Your task to perform on an android device: Open CNN.com Image 0: 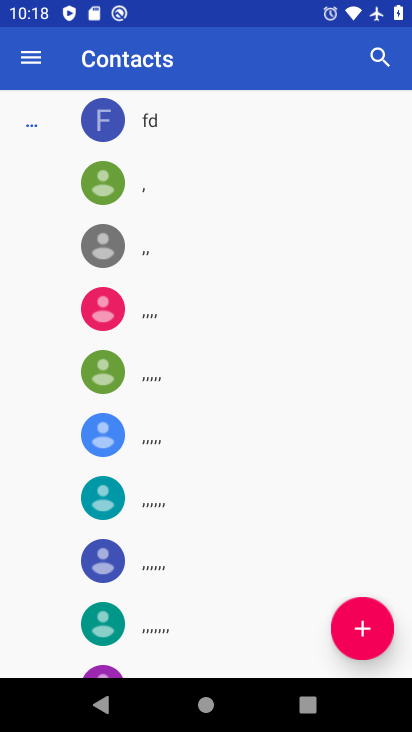
Step 0: press back button
Your task to perform on an android device: Open CNN.com Image 1: 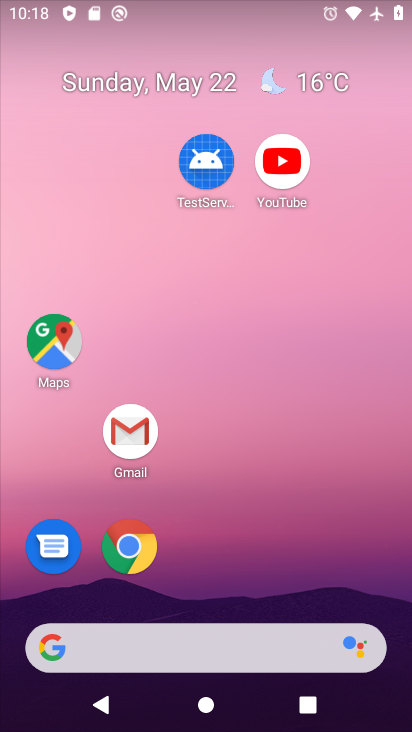
Step 1: drag from (267, 713) to (239, 302)
Your task to perform on an android device: Open CNN.com Image 2: 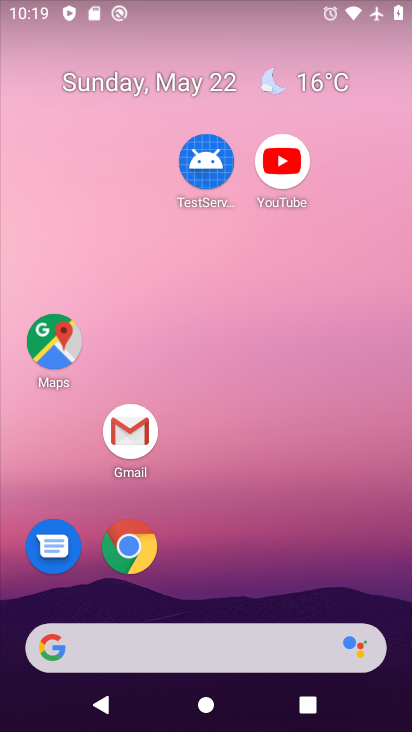
Step 2: drag from (265, 712) to (220, 248)
Your task to perform on an android device: Open CNN.com Image 3: 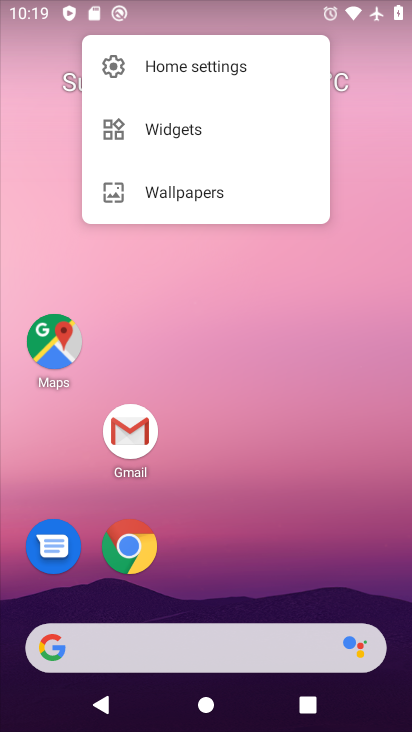
Step 3: drag from (292, 579) to (230, 59)
Your task to perform on an android device: Open CNN.com Image 4: 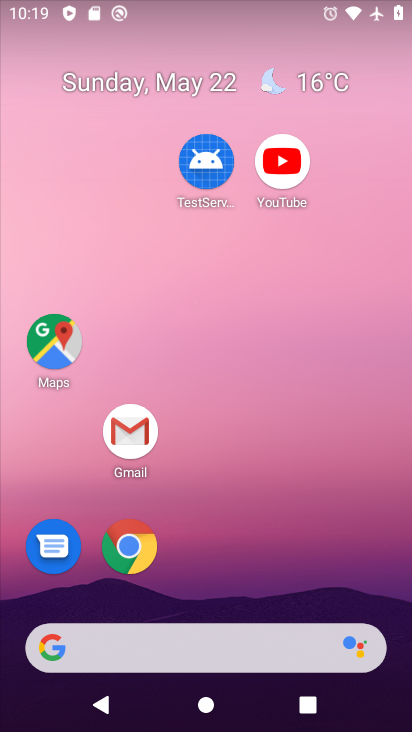
Step 4: click (237, 371)
Your task to perform on an android device: Open CNN.com Image 5: 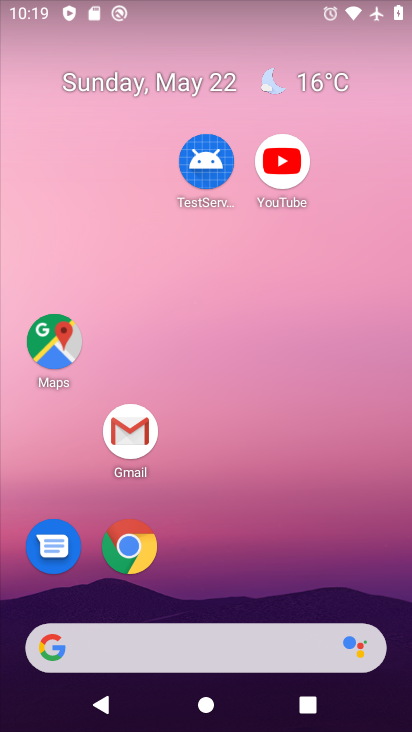
Step 5: drag from (248, 664) to (217, 102)
Your task to perform on an android device: Open CNN.com Image 6: 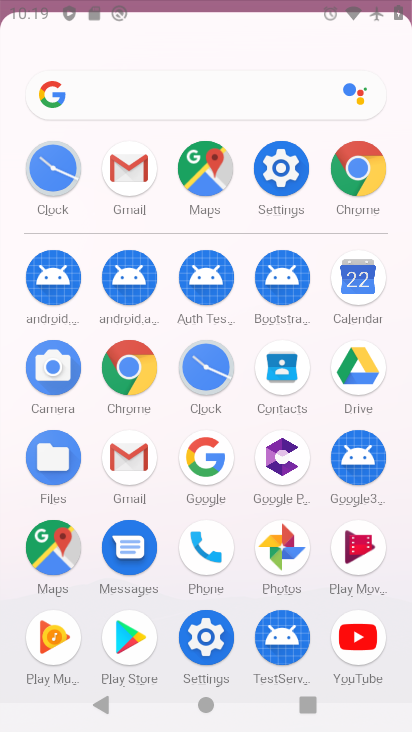
Step 6: drag from (245, 575) to (163, 20)
Your task to perform on an android device: Open CNN.com Image 7: 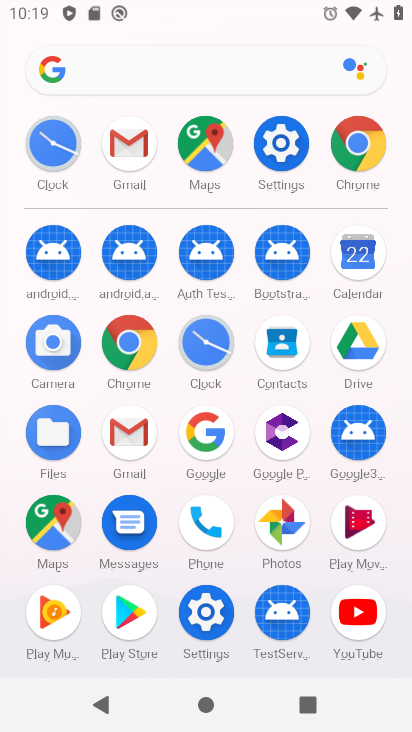
Step 7: click (349, 153)
Your task to perform on an android device: Open CNN.com Image 8: 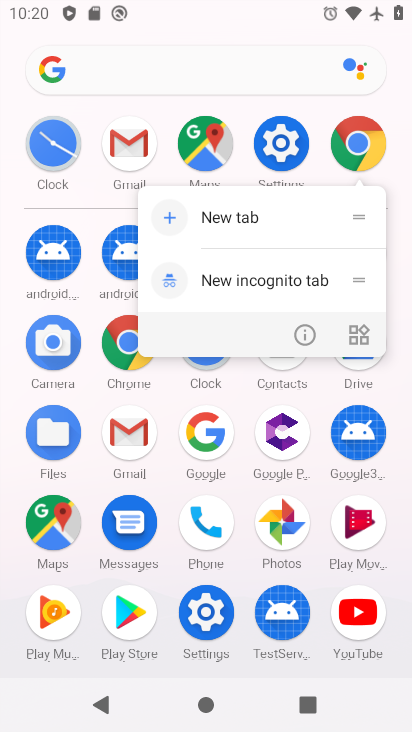
Step 8: click (239, 219)
Your task to perform on an android device: Open CNN.com Image 9: 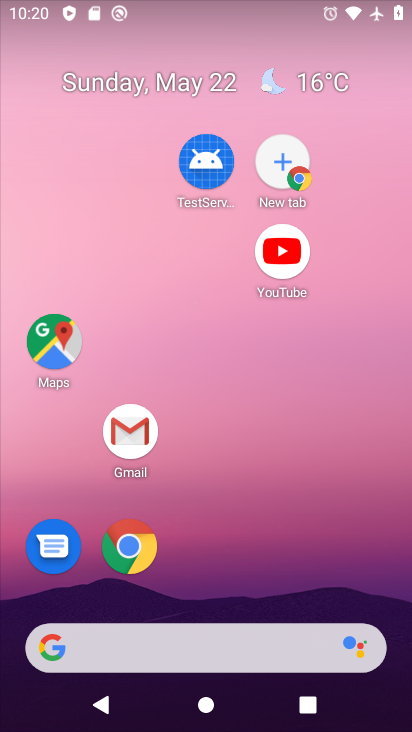
Step 9: drag from (248, 554) to (83, 51)
Your task to perform on an android device: Open CNN.com Image 10: 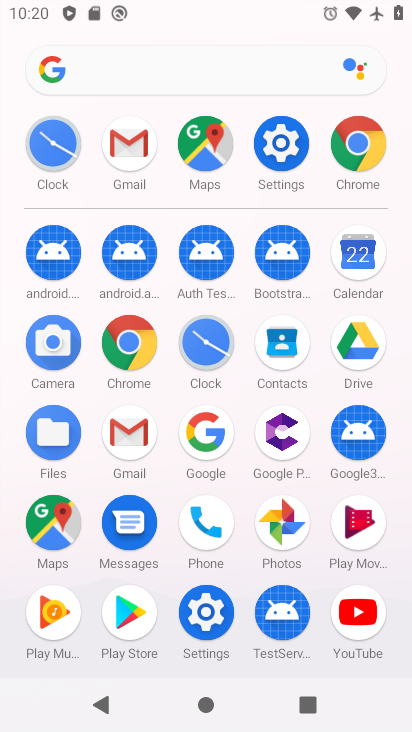
Step 10: click (362, 153)
Your task to perform on an android device: Open CNN.com Image 11: 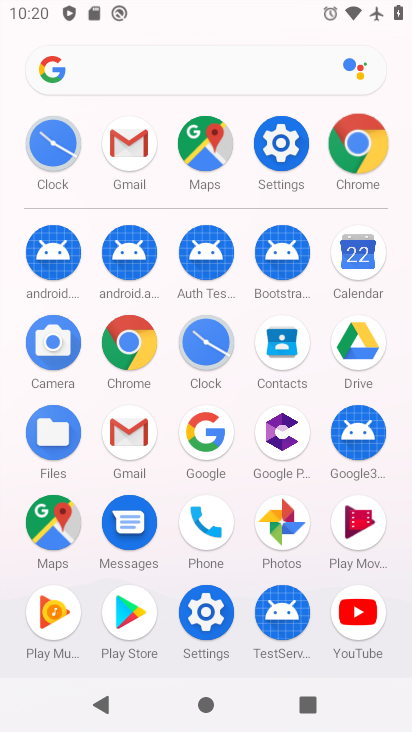
Step 11: click (363, 154)
Your task to perform on an android device: Open CNN.com Image 12: 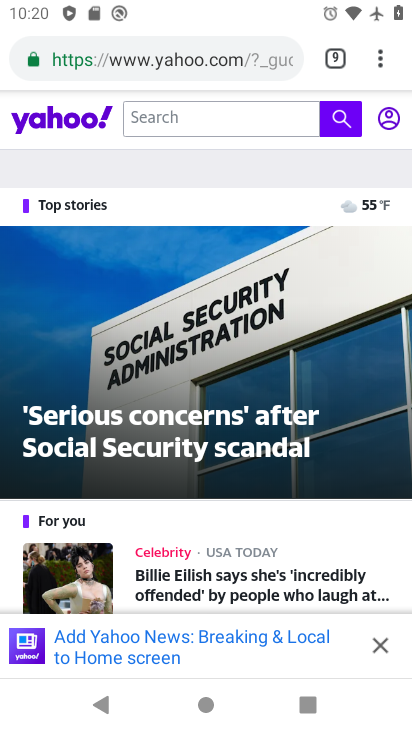
Step 12: drag from (377, 63) to (154, 119)
Your task to perform on an android device: Open CNN.com Image 13: 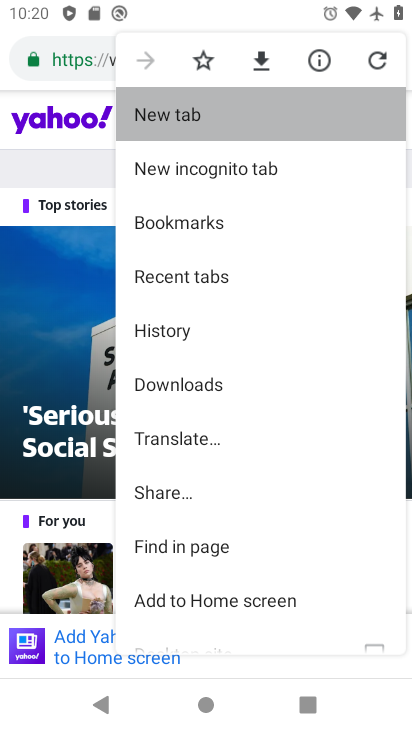
Step 13: click (160, 114)
Your task to perform on an android device: Open CNN.com Image 14: 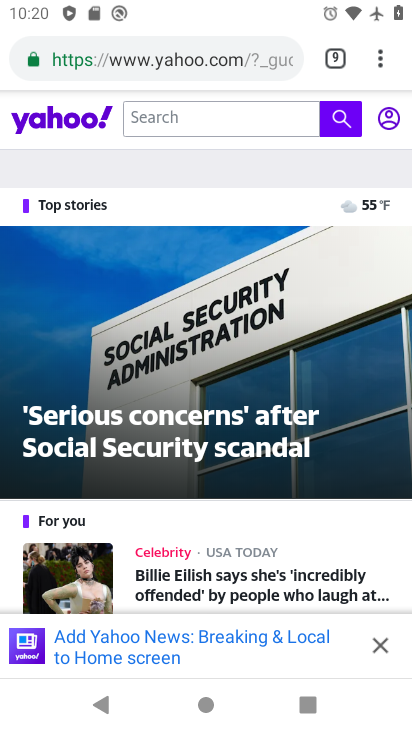
Step 14: click (162, 112)
Your task to perform on an android device: Open CNN.com Image 15: 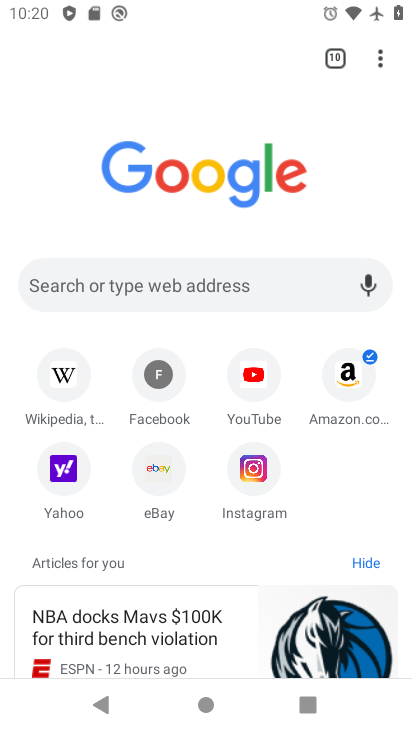
Step 15: click (51, 275)
Your task to perform on an android device: Open CNN.com Image 16: 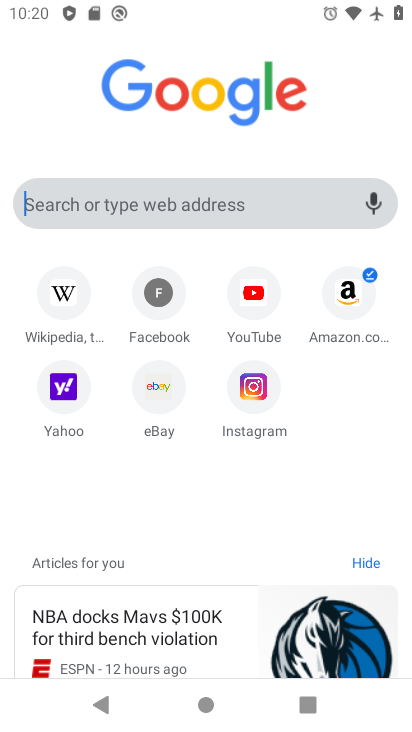
Step 16: click (51, 275)
Your task to perform on an android device: Open CNN.com Image 17: 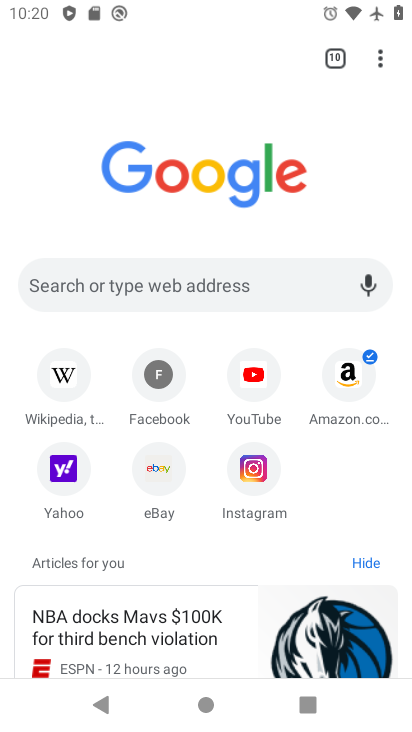
Step 17: click (59, 276)
Your task to perform on an android device: Open CNN.com Image 18: 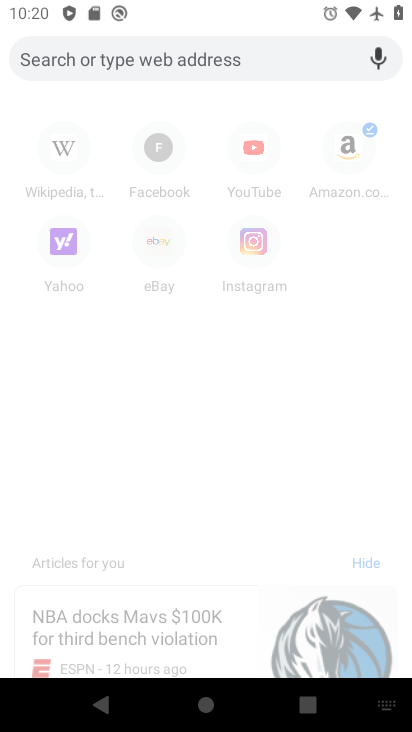
Step 18: type "cnn.com"
Your task to perform on an android device: Open CNN.com Image 19: 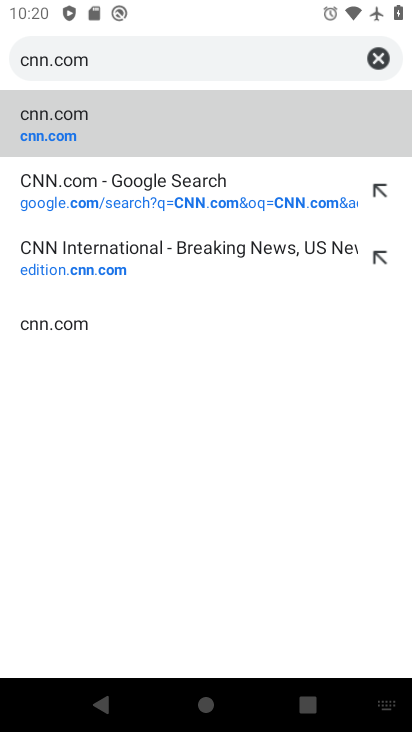
Step 19: click (46, 136)
Your task to perform on an android device: Open CNN.com Image 20: 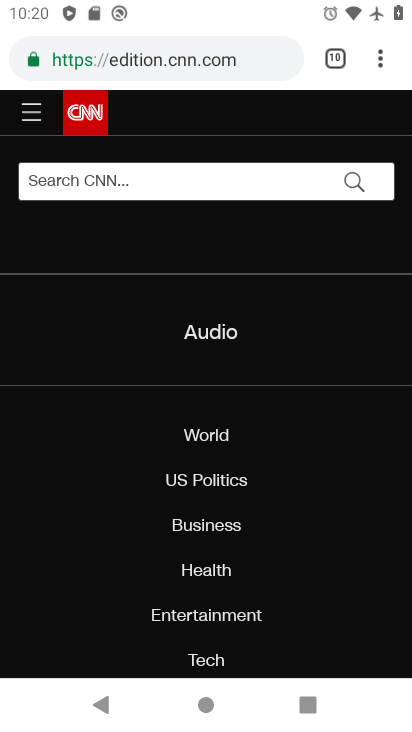
Step 20: task complete